Your task to perform on an android device: turn off improve location accuracy Image 0: 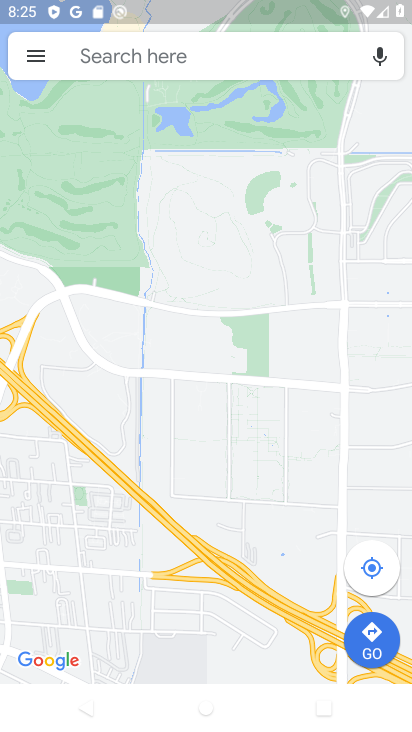
Step 0: press back button
Your task to perform on an android device: turn off improve location accuracy Image 1: 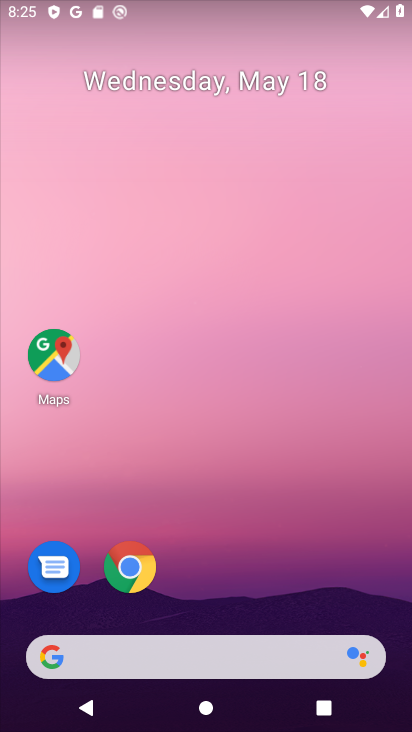
Step 1: drag from (259, 521) to (211, 1)
Your task to perform on an android device: turn off improve location accuracy Image 2: 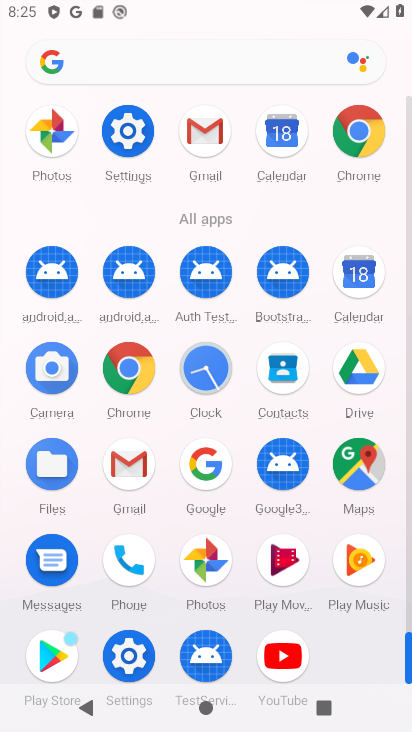
Step 2: click (129, 124)
Your task to perform on an android device: turn off improve location accuracy Image 3: 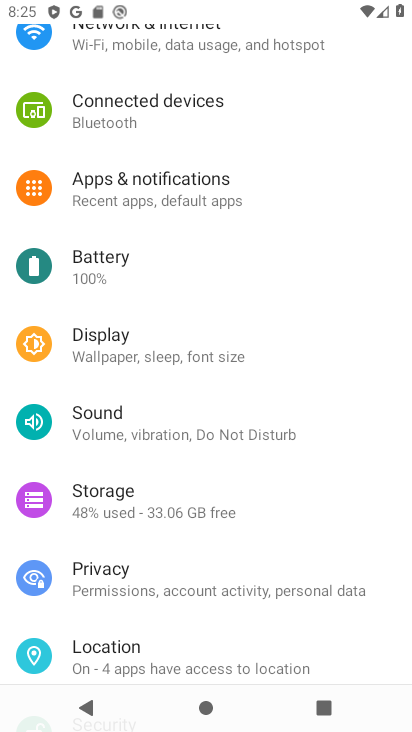
Step 3: click (119, 657)
Your task to perform on an android device: turn off improve location accuracy Image 4: 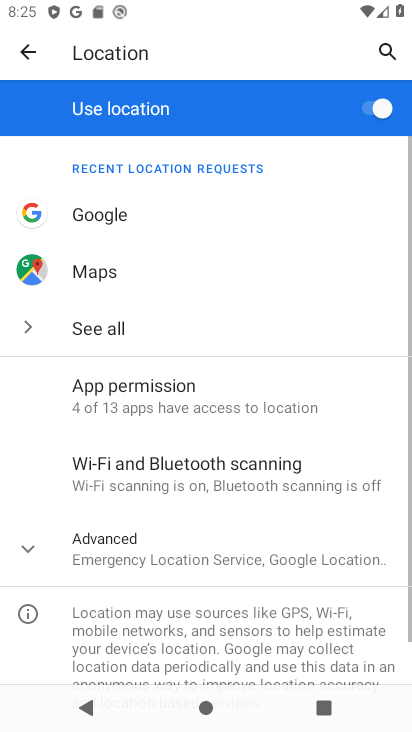
Step 4: click (45, 551)
Your task to perform on an android device: turn off improve location accuracy Image 5: 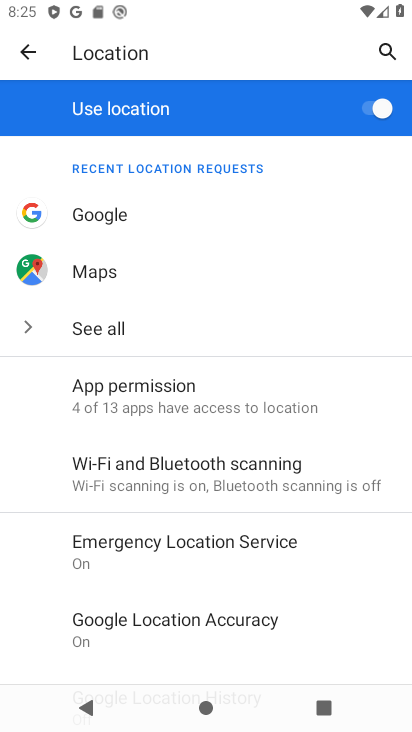
Step 5: click (206, 613)
Your task to perform on an android device: turn off improve location accuracy Image 6: 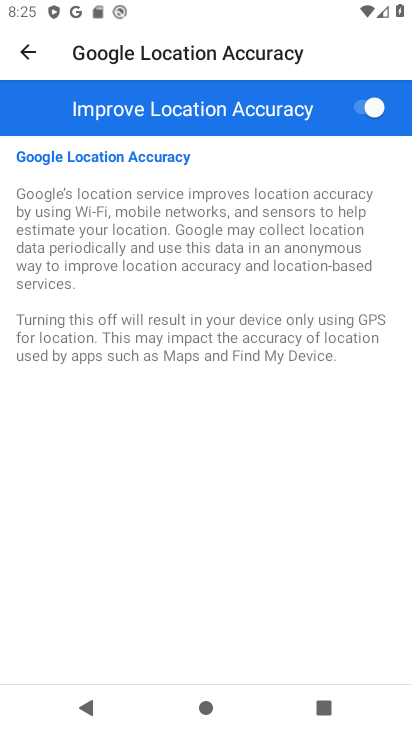
Step 6: click (359, 103)
Your task to perform on an android device: turn off improve location accuracy Image 7: 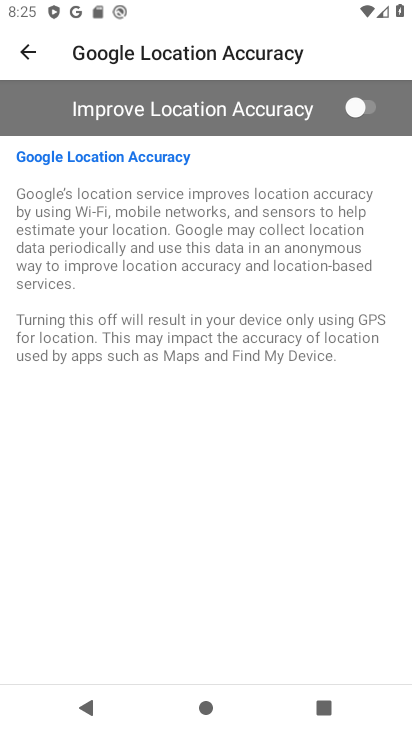
Step 7: task complete